Your task to perform on an android device: Open the stopwatch Image 0: 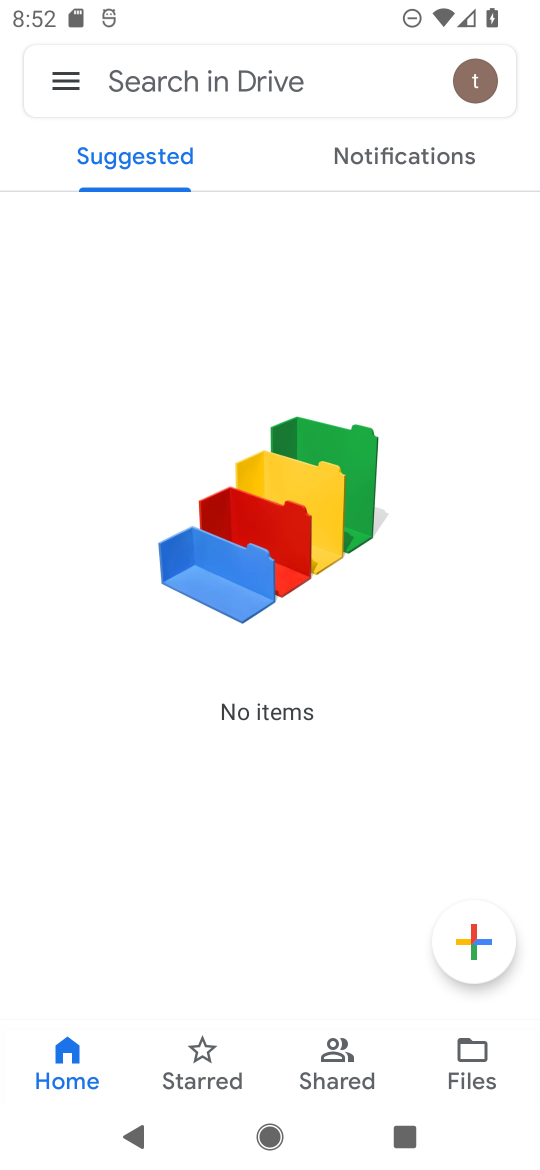
Step 0: press home button
Your task to perform on an android device: Open the stopwatch Image 1: 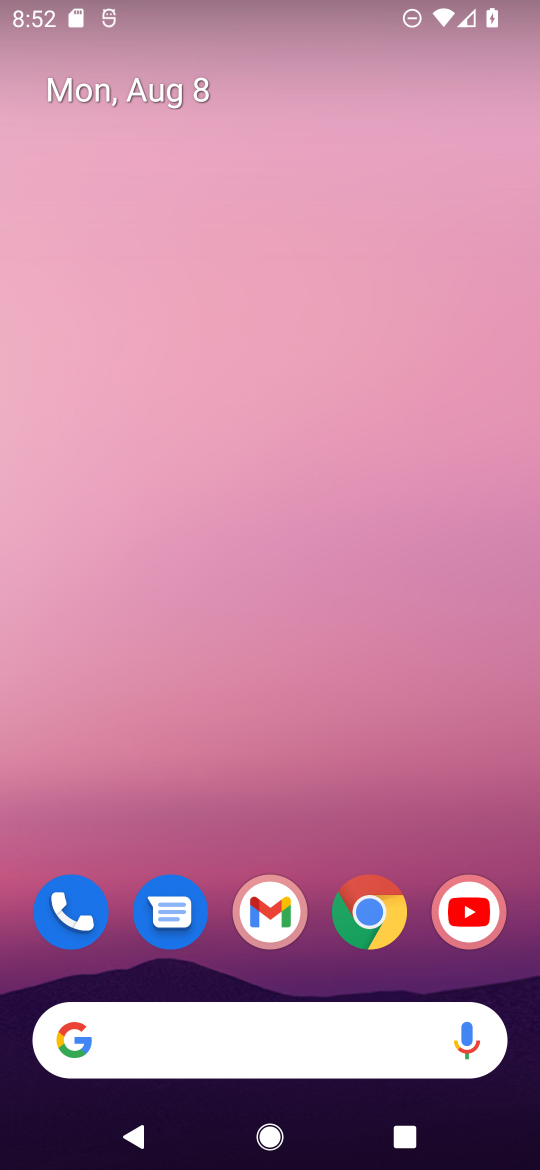
Step 1: drag from (513, 968) to (286, 68)
Your task to perform on an android device: Open the stopwatch Image 2: 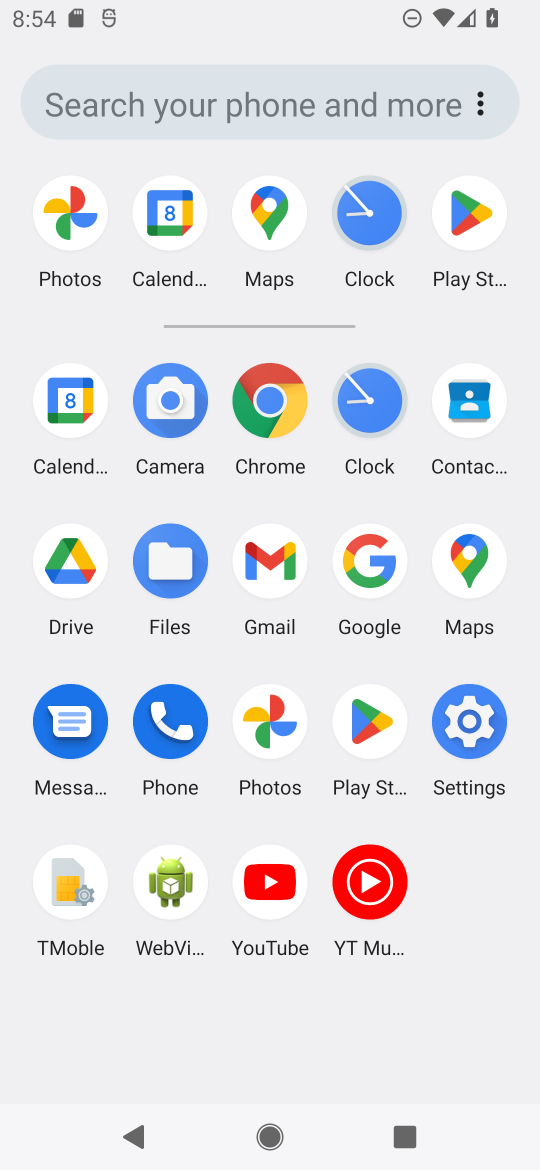
Step 2: click (380, 400)
Your task to perform on an android device: Open the stopwatch Image 3: 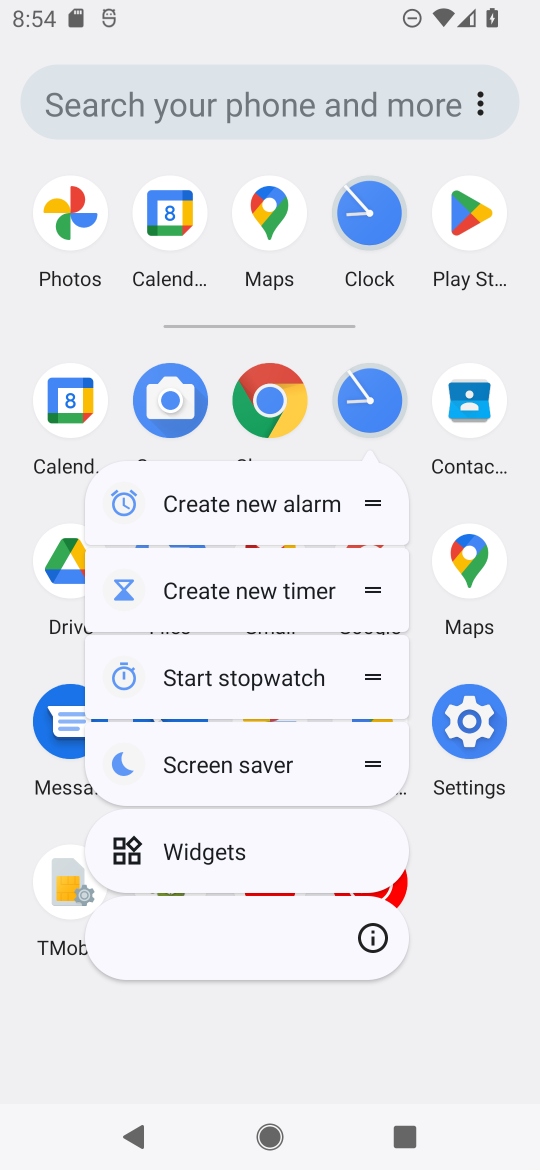
Step 3: click (380, 400)
Your task to perform on an android device: Open the stopwatch Image 4: 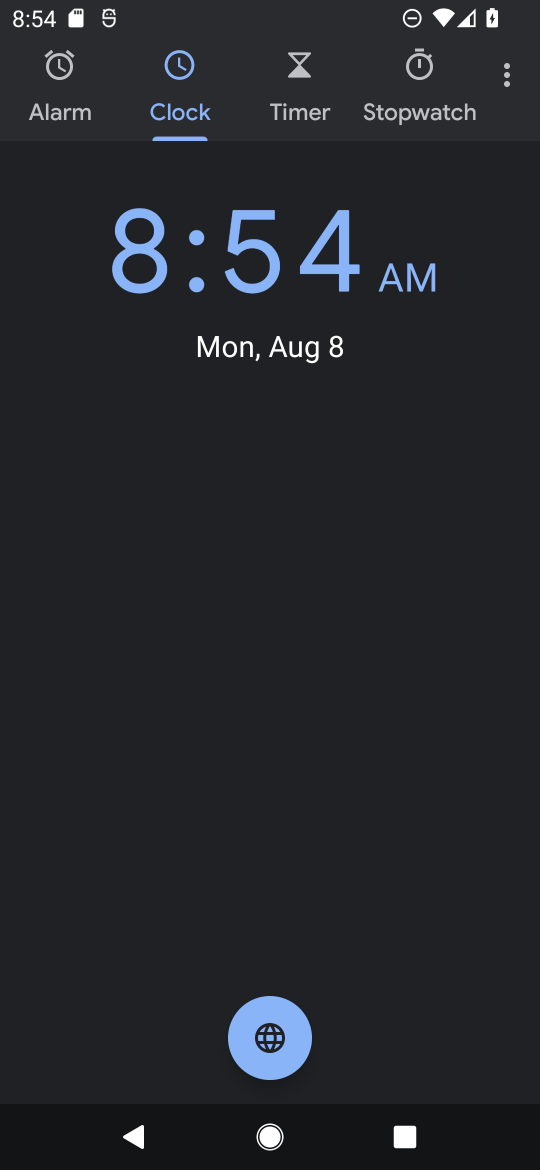
Step 4: click (409, 79)
Your task to perform on an android device: Open the stopwatch Image 5: 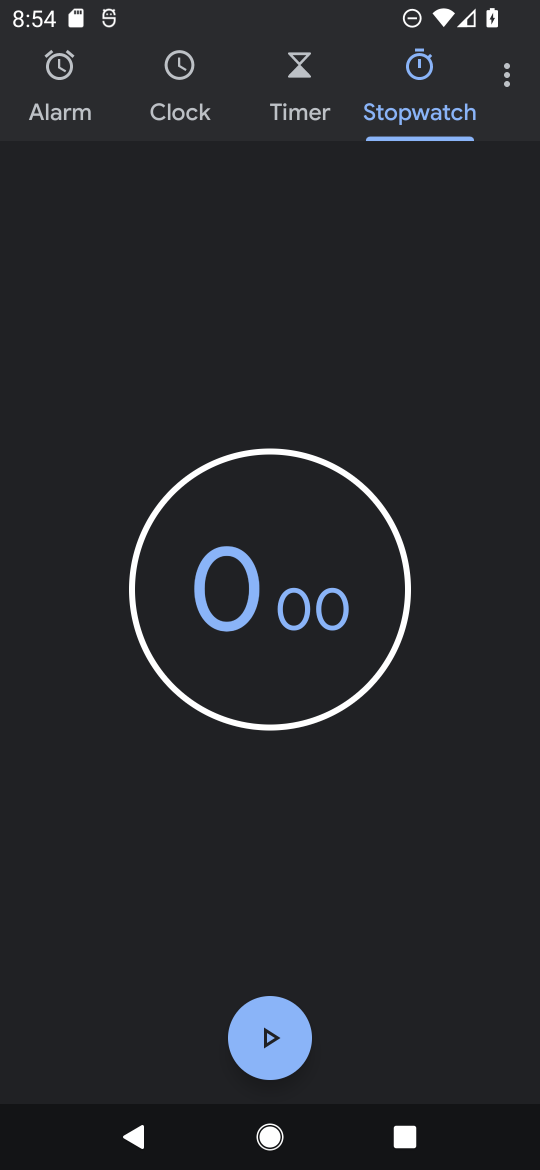
Step 5: task complete